Your task to perform on an android device: Show me productivity apps on the Play Store Image 0: 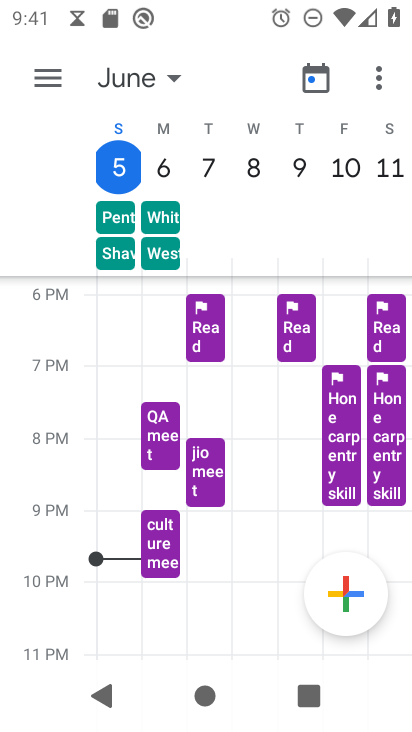
Step 0: press home button
Your task to perform on an android device: Show me productivity apps on the Play Store Image 1: 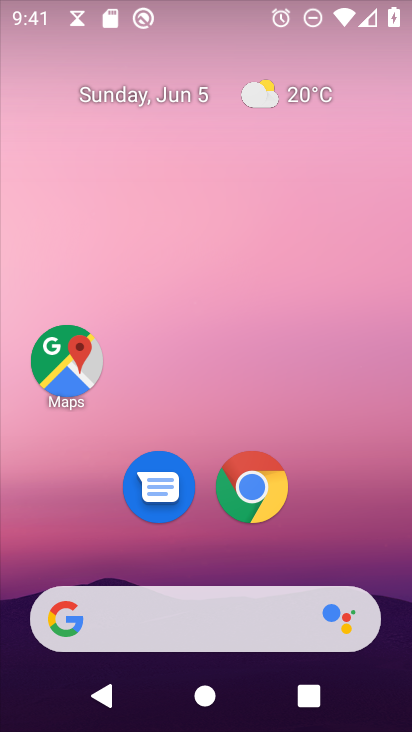
Step 1: drag from (227, 546) to (209, 252)
Your task to perform on an android device: Show me productivity apps on the Play Store Image 2: 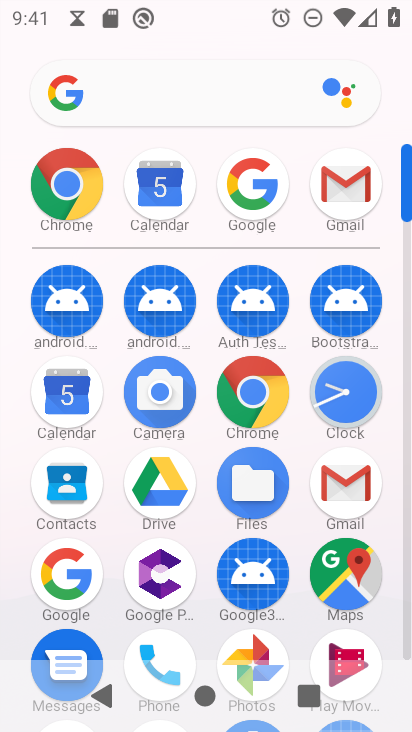
Step 2: drag from (214, 615) to (206, 345)
Your task to perform on an android device: Show me productivity apps on the Play Store Image 3: 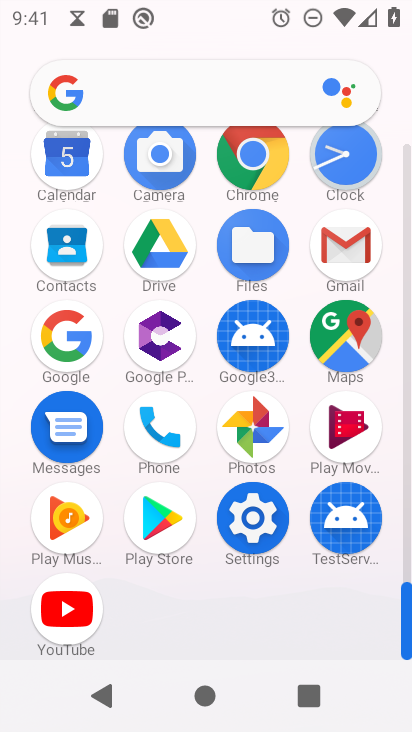
Step 3: click (154, 529)
Your task to perform on an android device: Show me productivity apps on the Play Store Image 4: 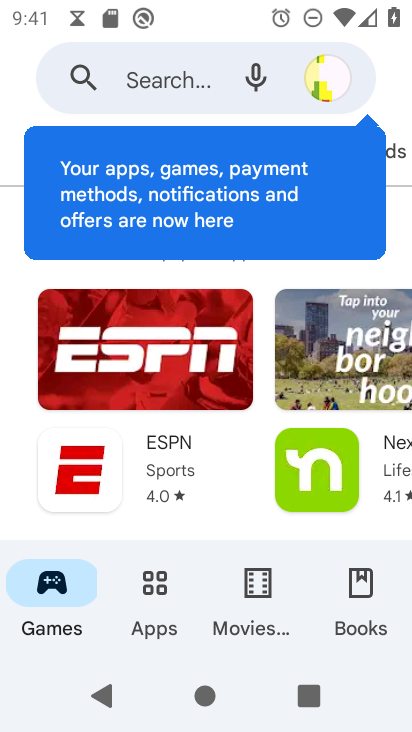
Step 4: click (159, 613)
Your task to perform on an android device: Show me productivity apps on the Play Store Image 5: 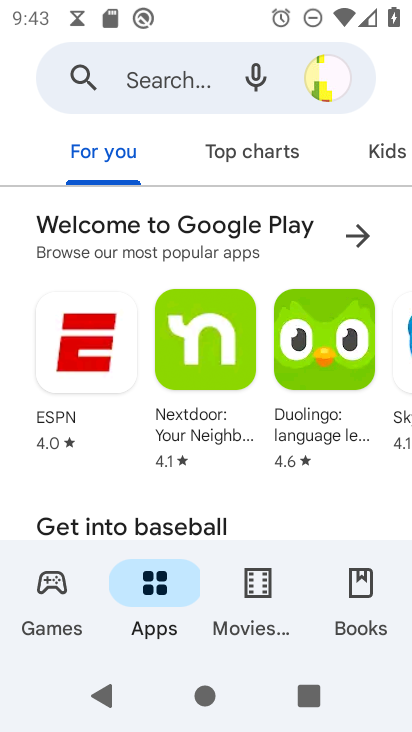
Step 5: task complete